Your task to perform on an android device: Show me the alarms in the clock app Image 0: 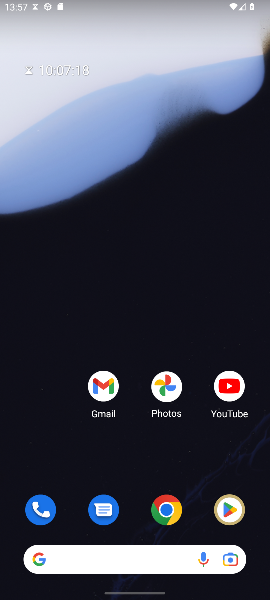
Step 0: press home button
Your task to perform on an android device: Show me the alarms in the clock app Image 1: 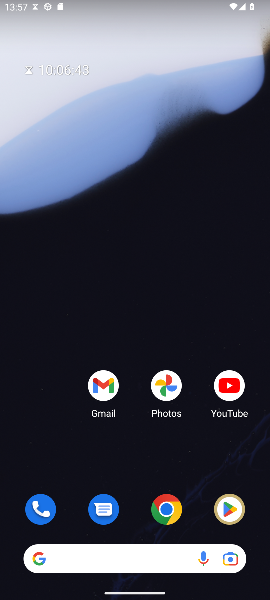
Step 1: drag from (140, 524) to (198, 53)
Your task to perform on an android device: Show me the alarms in the clock app Image 2: 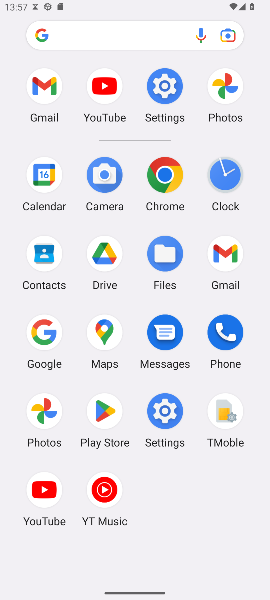
Step 2: click (221, 180)
Your task to perform on an android device: Show me the alarms in the clock app Image 3: 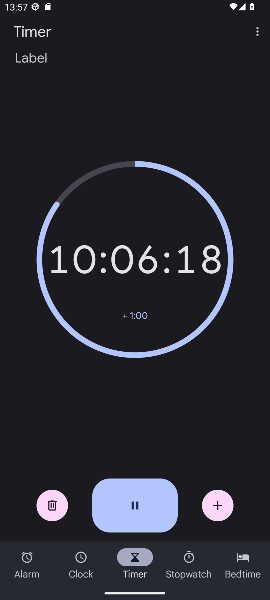
Step 3: click (29, 571)
Your task to perform on an android device: Show me the alarms in the clock app Image 4: 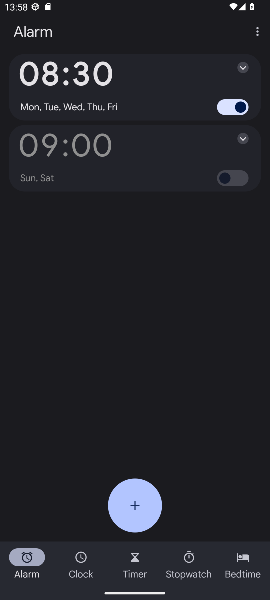
Step 4: task complete